Your task to perform on an android device: Check the news Image 0: 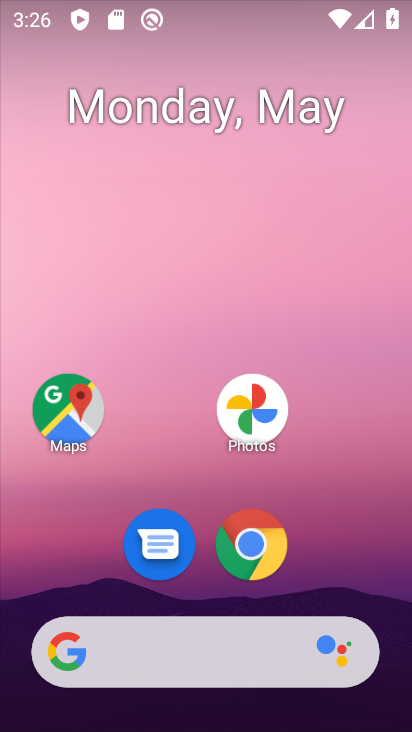
Step 0: drag from (231, 636) to (342, 131)
Your task to perform on an android device: Check the news Image 1: 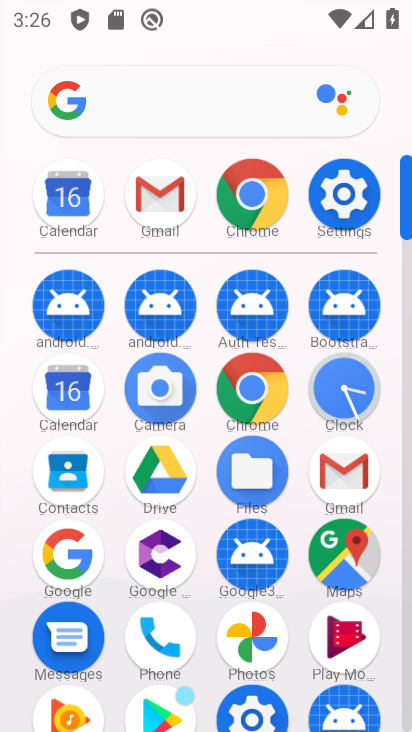
Step 1: click (258, 398)
Your task to perform on an android device: Check the news Image 2: 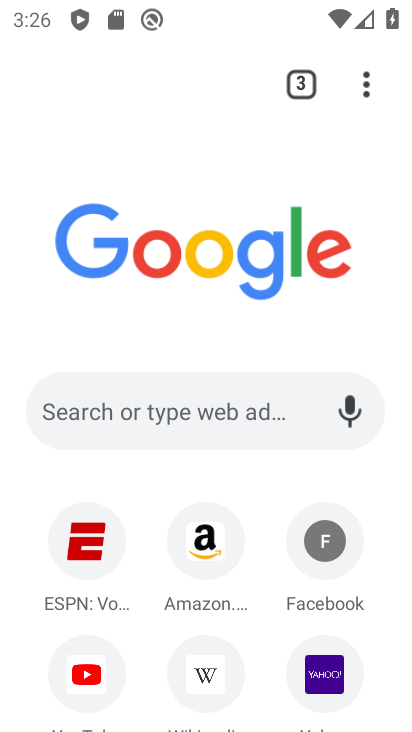
Step 2: click (258, 398)
Your task to perform on an android device: Check the news Image 3: 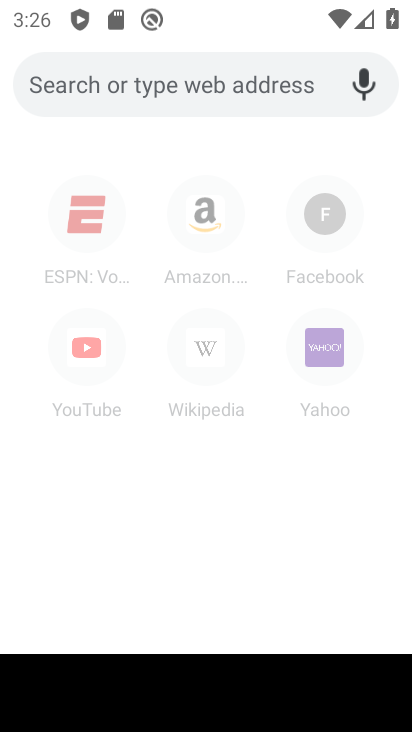
Step 3: type "check the news"
Your task to perform on an android device: Check the news Image 4: 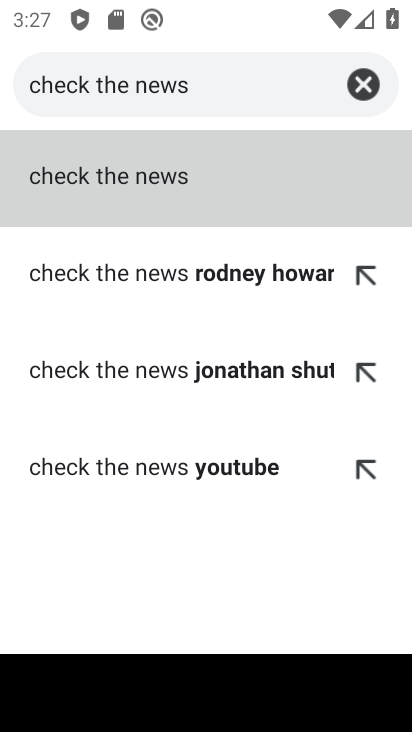
Step 4: click (69, 156)
Your task to perform on an android device: Check the news Image 5: 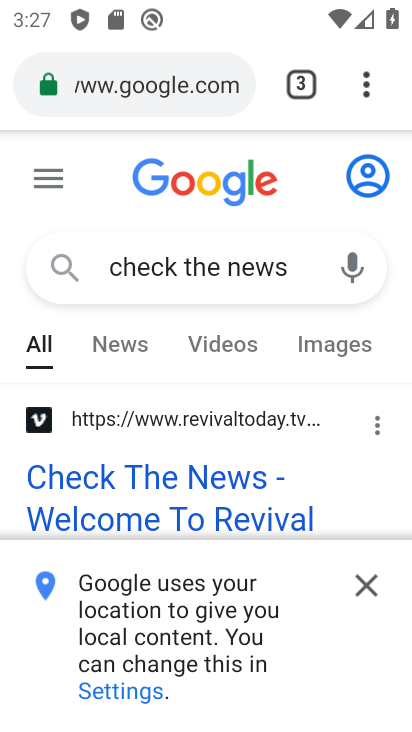
Step 5: task complete